Your task to perform on an android device: turn on javascript in the chrome app Image 0: 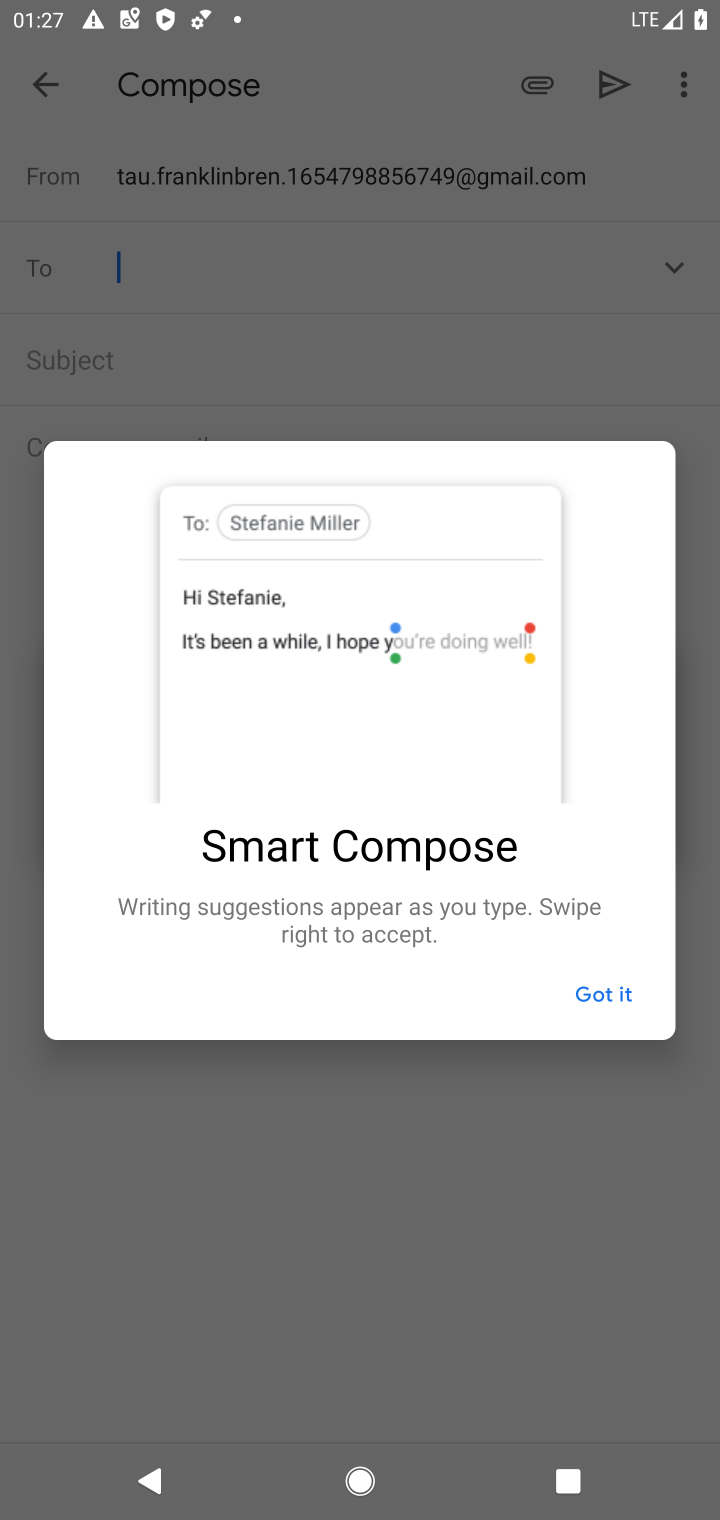
Step 0: click (592, 1006)
Your task to perform on an android device: turn on javascript in the chrome app Image 1: 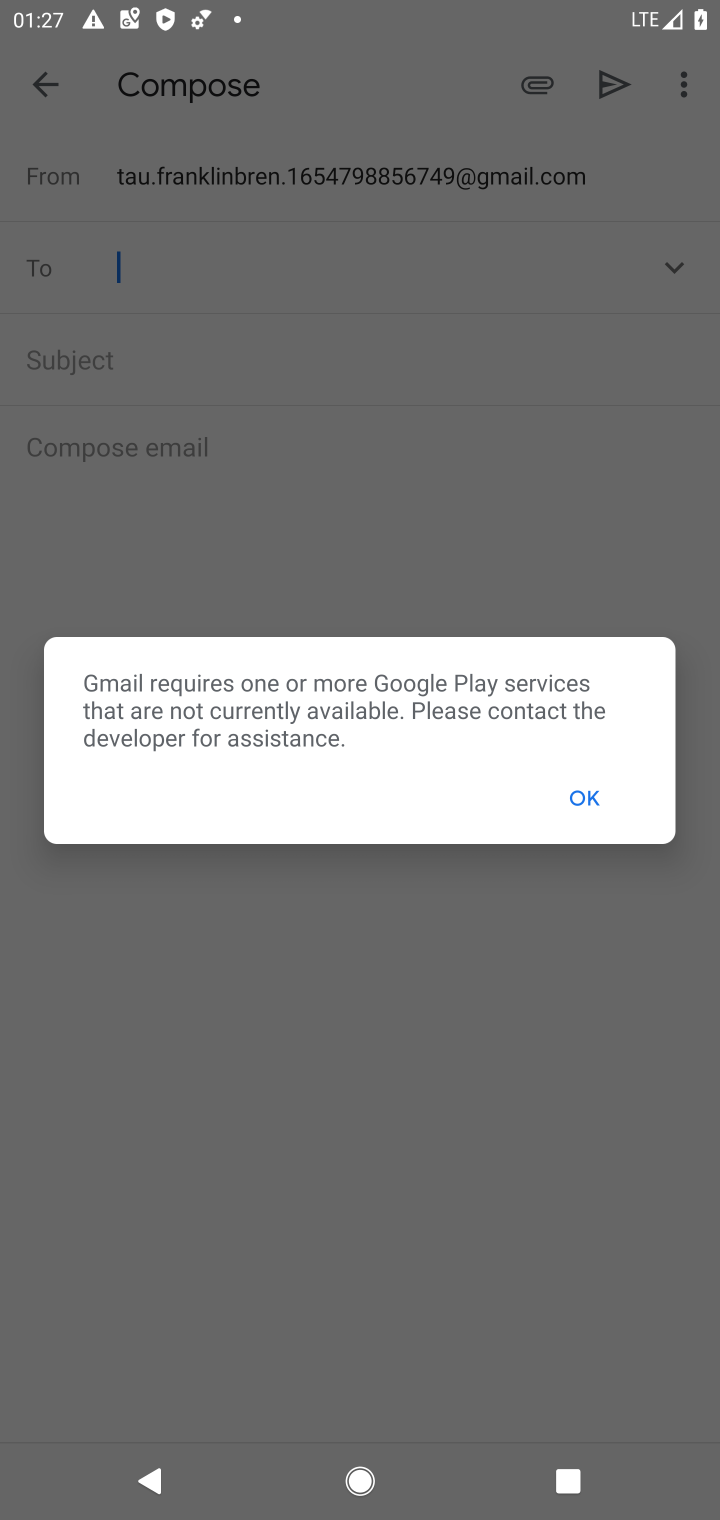
Step 1: click (597, 789)
Your task to perform on an android device: turn on javascript in the chrome app Image 2: 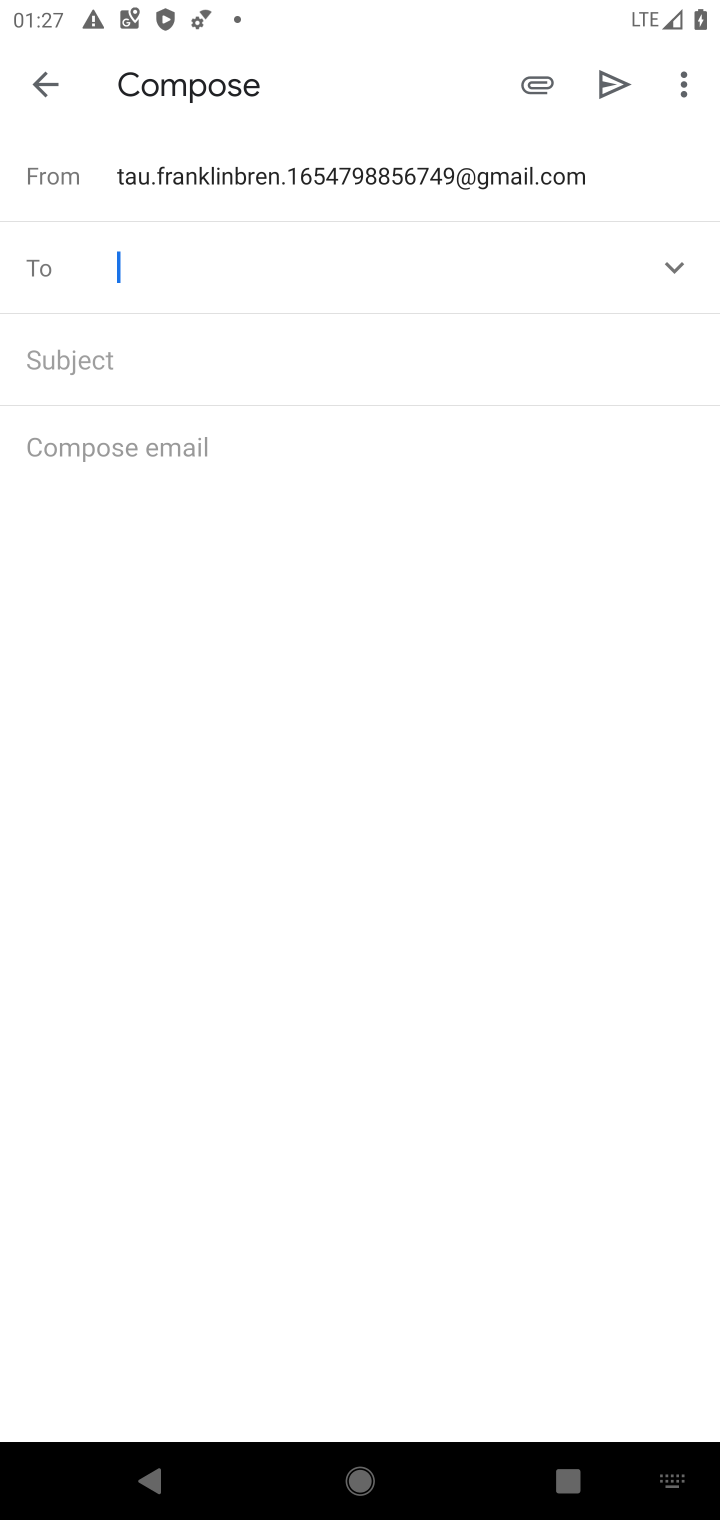
Step 2: press home button
Your task to perform on an android device: turn on javascript in the chrome app Image 3: 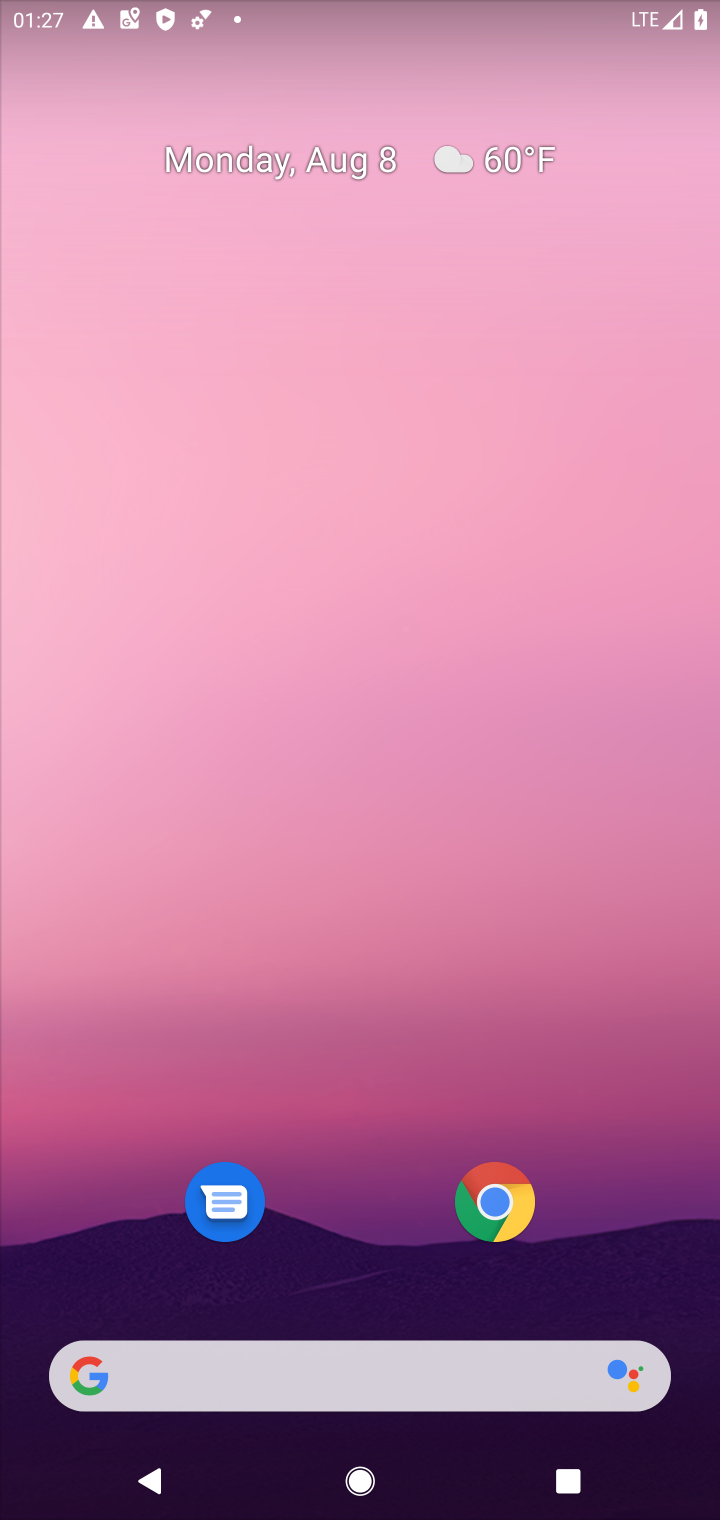
Step 3: click (495, 1192)
Your task to perform on an android device: turn on javascript in the chrome app Image 4: 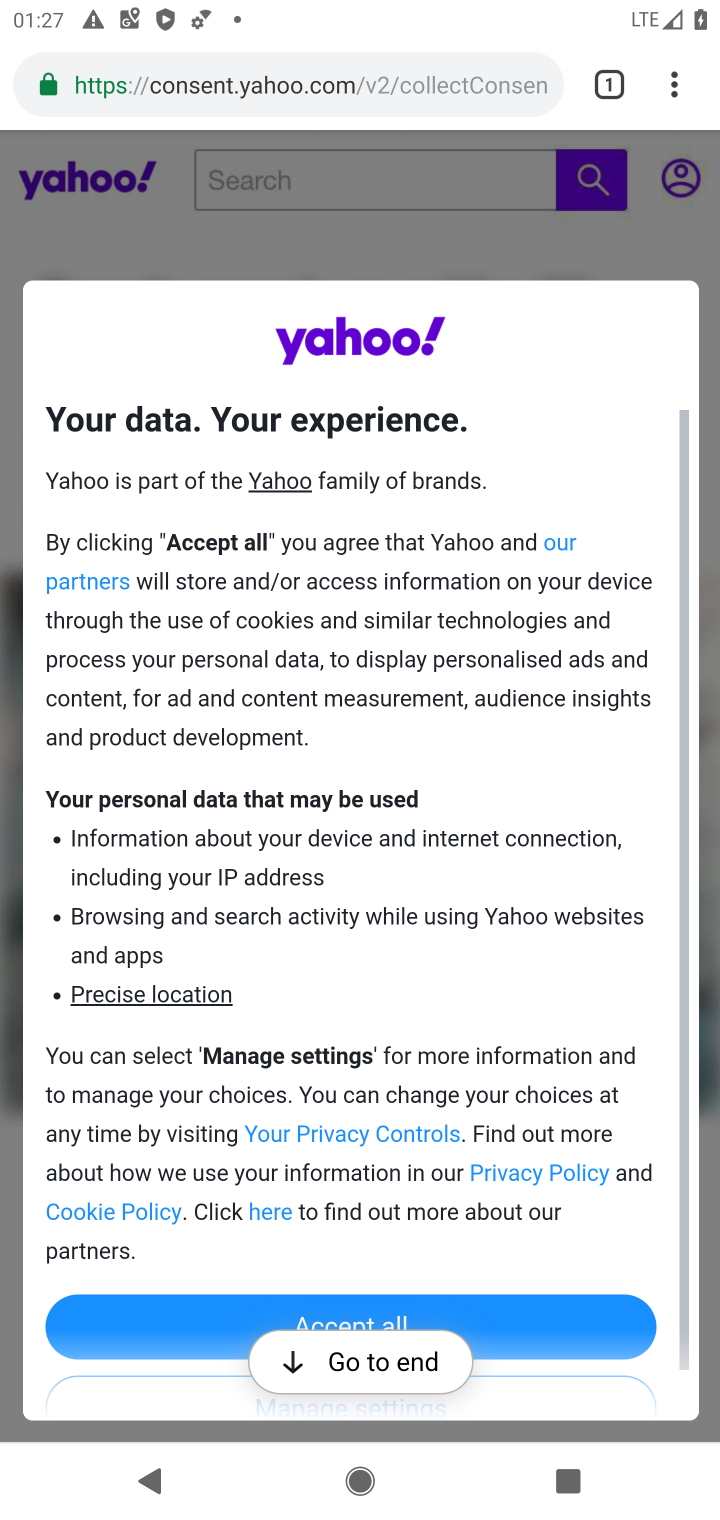
Step 4: click (675, 91)
Your task to perform on an android device: turn on javascript in the chrome app Image 5: 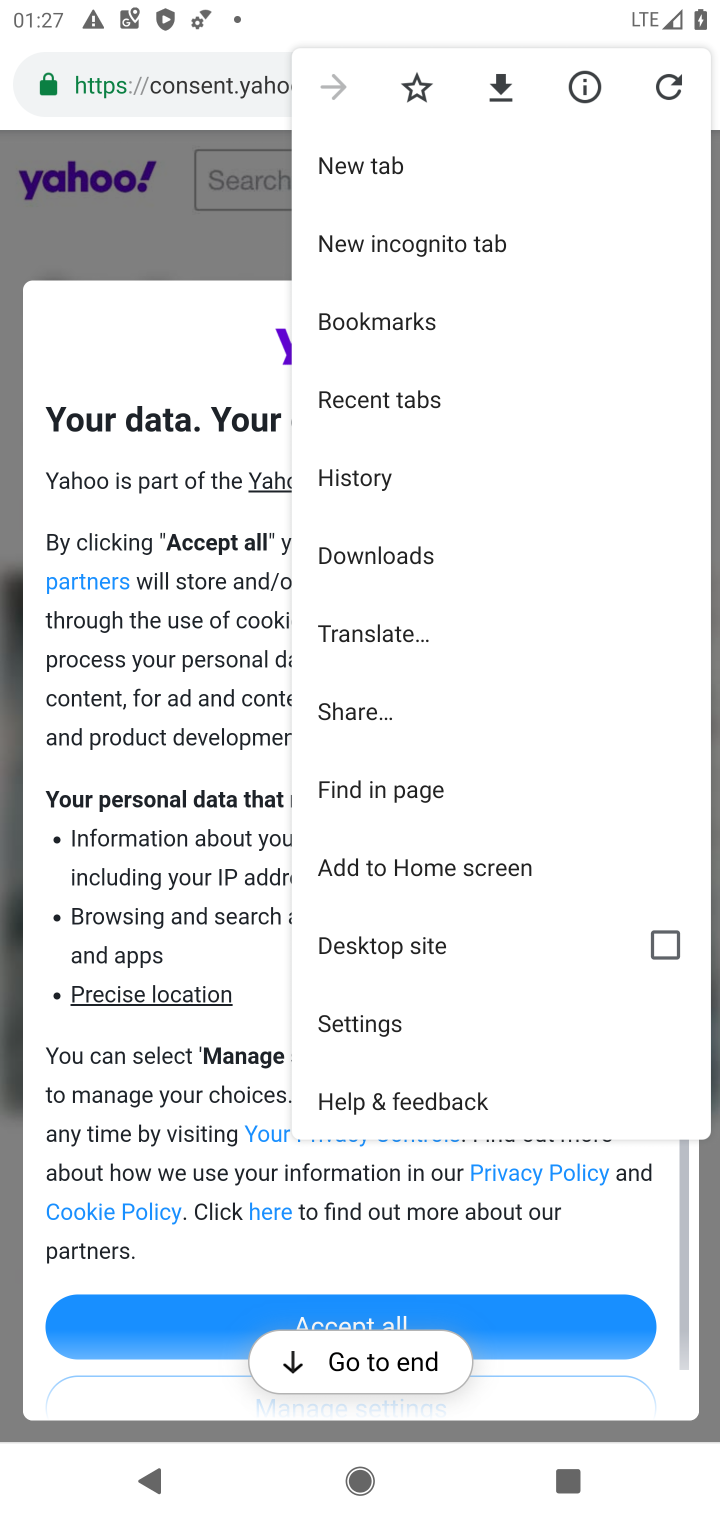
Step 5: click (389, 1017)
Your task to perform on an android device: turn on javascript in the chrome app Image 6: 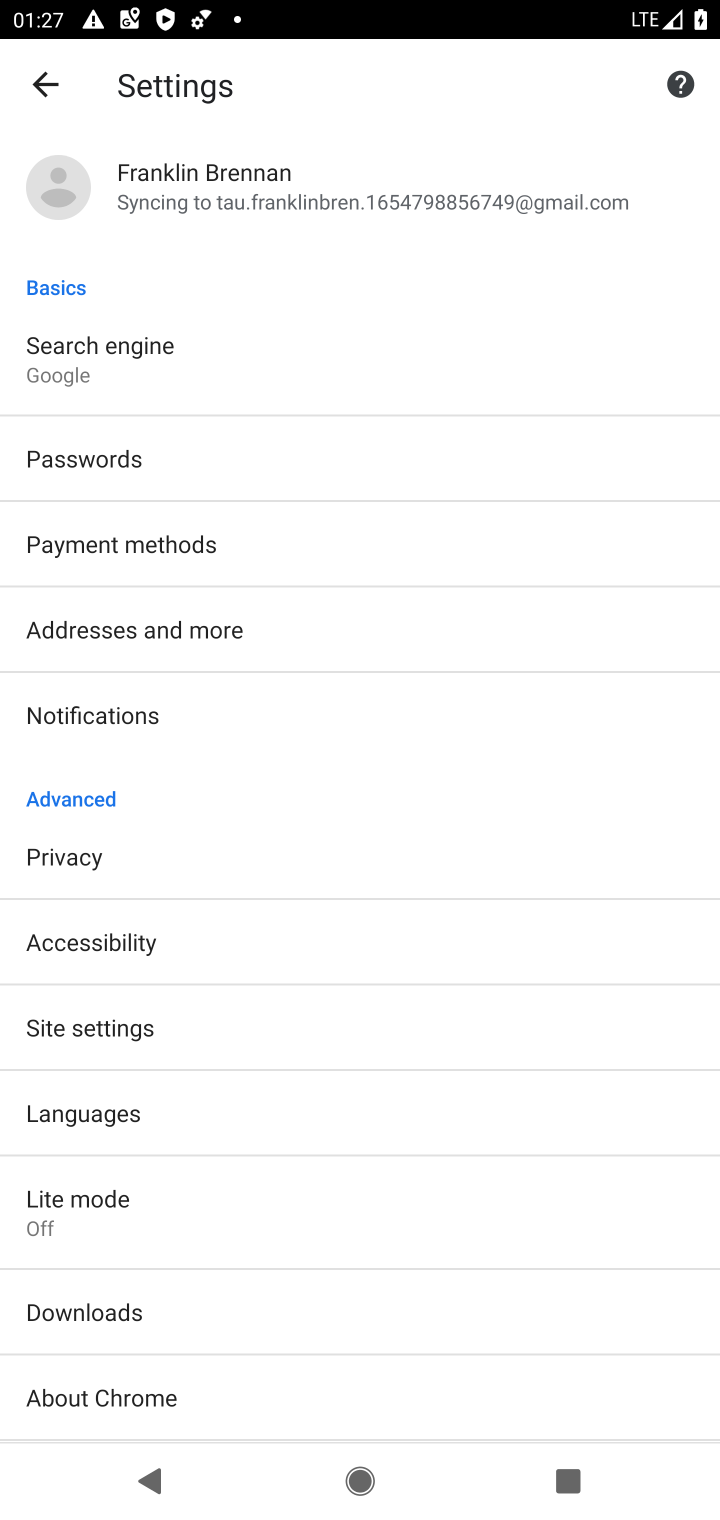
Step 6: click (134, 1045)
Your task to perform on an android device: turn on javascript in the chrome app Image 7: 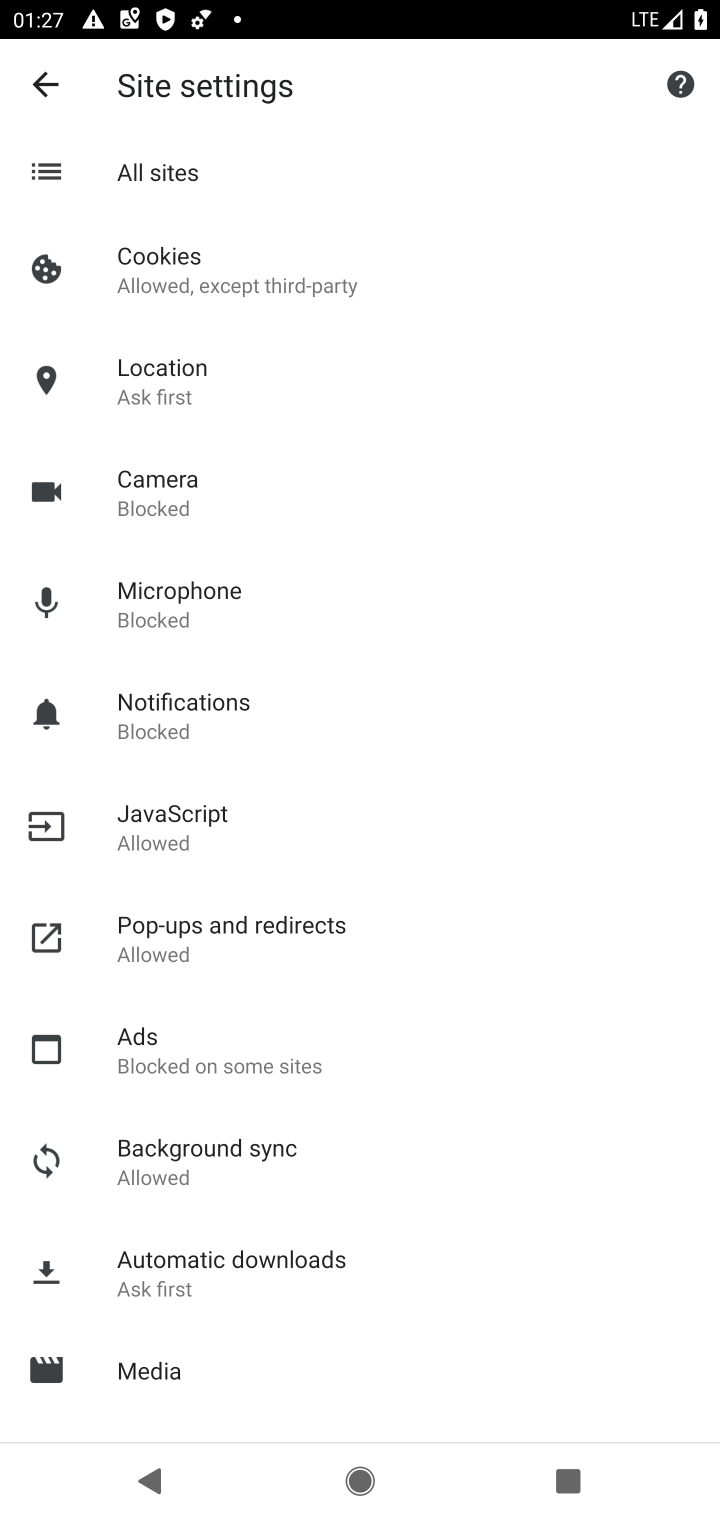
Step 7: click (170, 868)
Your task to perform on an android device: turn on javascript in the chrome app Image 8: 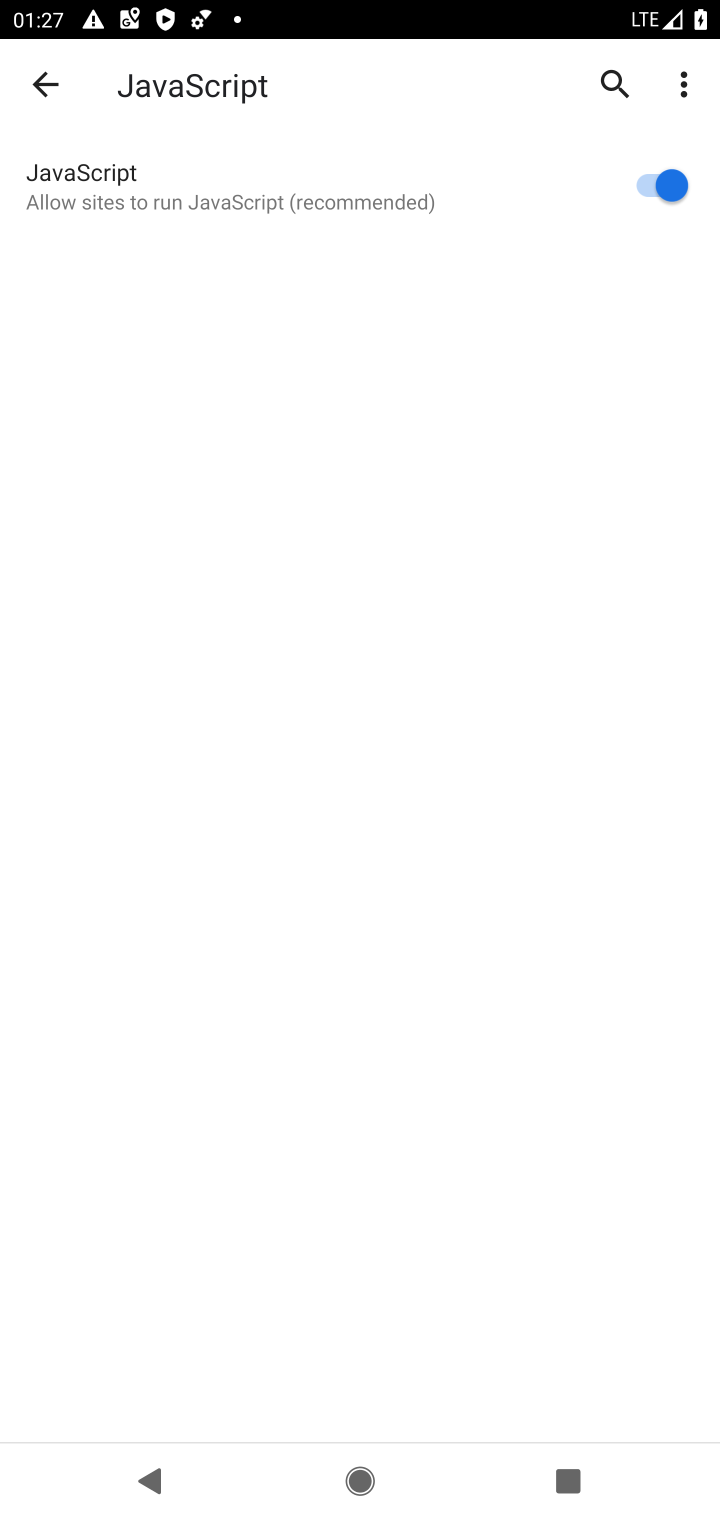
Step 8: task complete